Your task to perform on an android device: find snoozed emails in the gmail app Image 0: 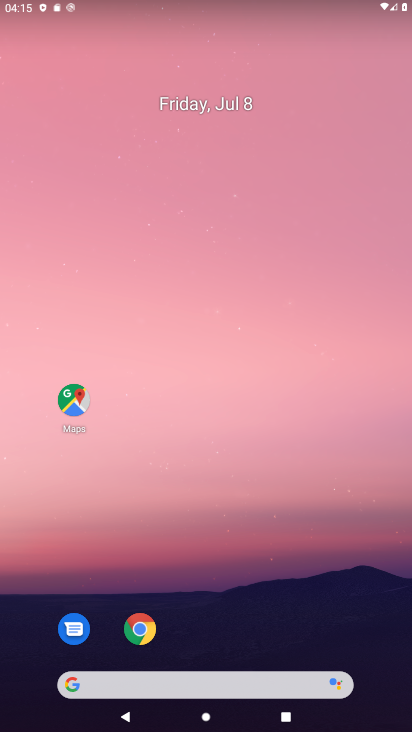
Step 0: drag from (254, 685) to (255, 108)
Your task to perform on an android device: find snoozed emails in the gmail app Image 1: 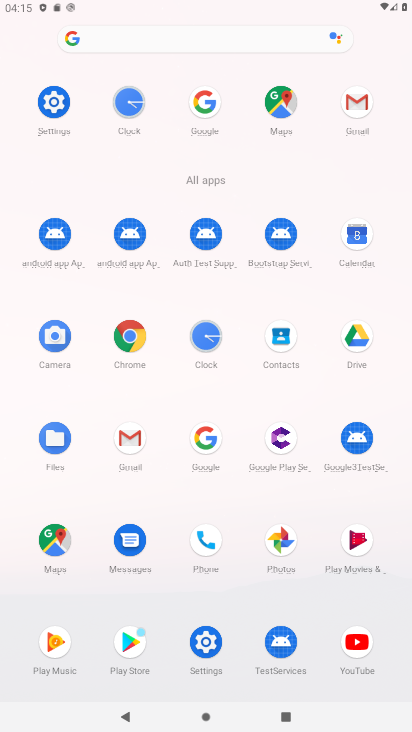
Step 1: click (134, 451)
Your task to perform on an android device: find snoozed emails in the gmail app Image 2: 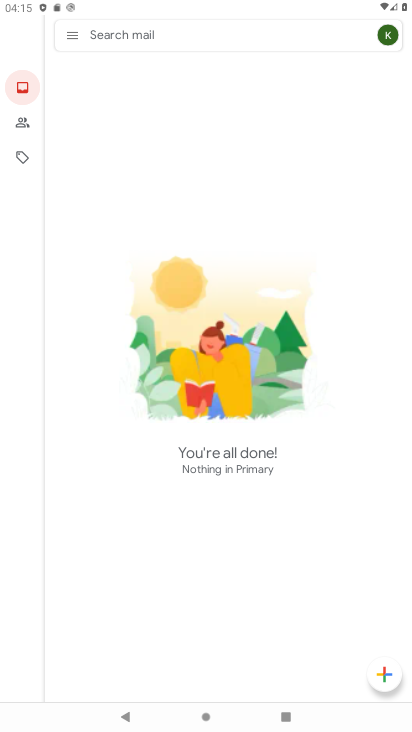
Step 2: click (76, 27)
Your task to perform on an android device: find snoozed emails in the gmail app Image 3: 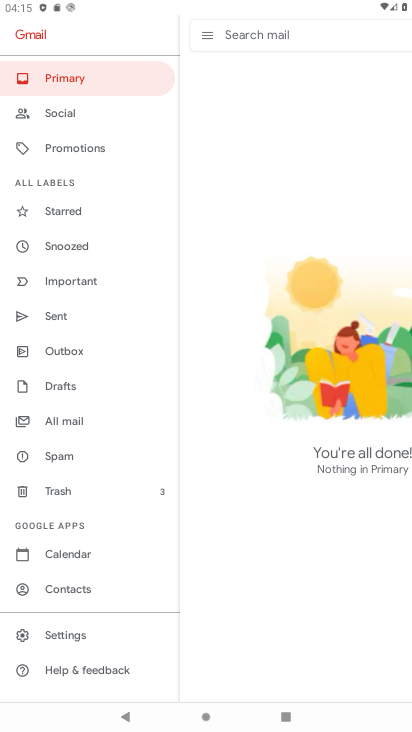
Step 3: click (69, 243)
Your task to perform on an android device: find snoozed emails in the gmail app Image 4: 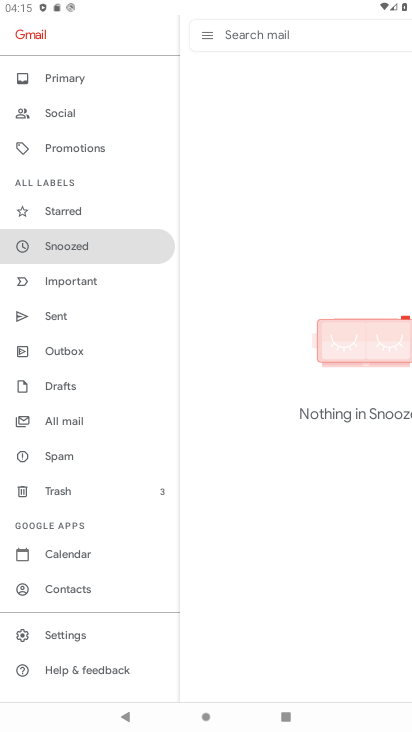
Step 4: task complete